Your task to perform on an android device: change the clock display to analog Image 0: 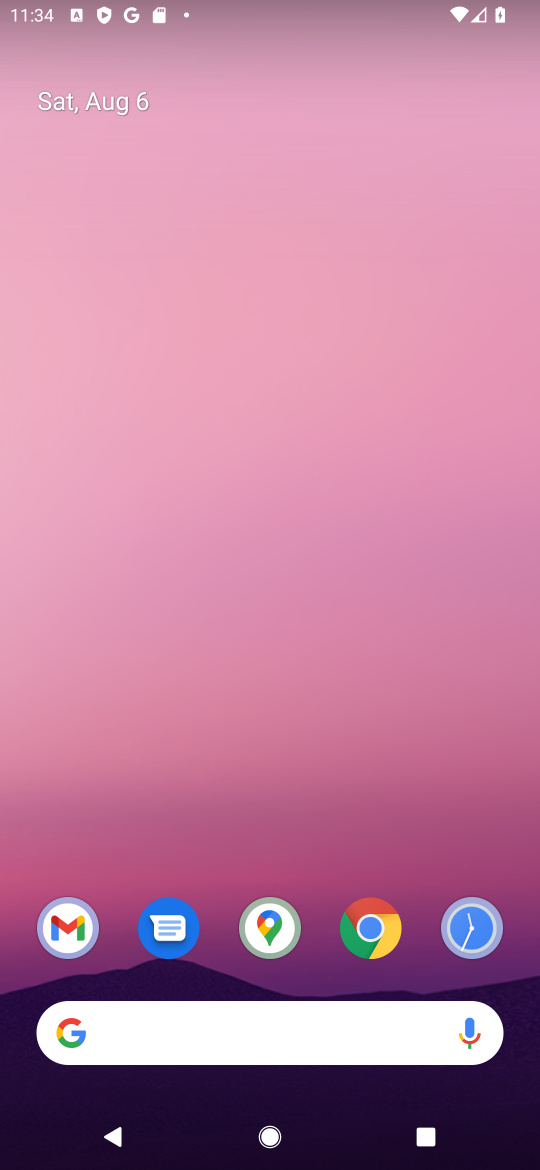
Step 0: click (460, 916)
Your task to perform on an android device: change the clock display to analog Image 1: 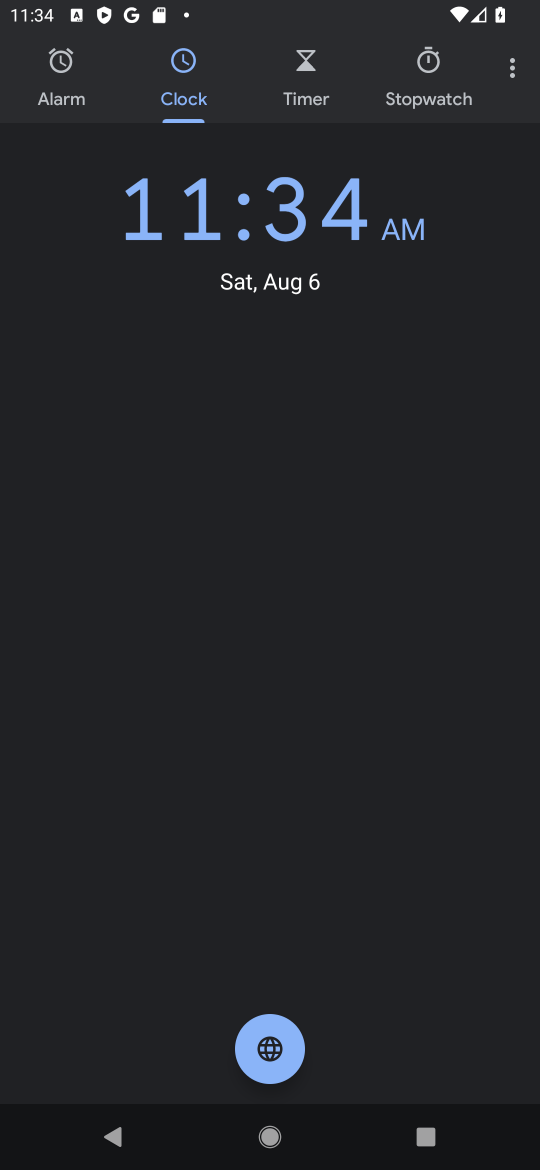
Step 1: click (505, 67)
Your task to perform on an android device: change the clock display to analog Image 2: 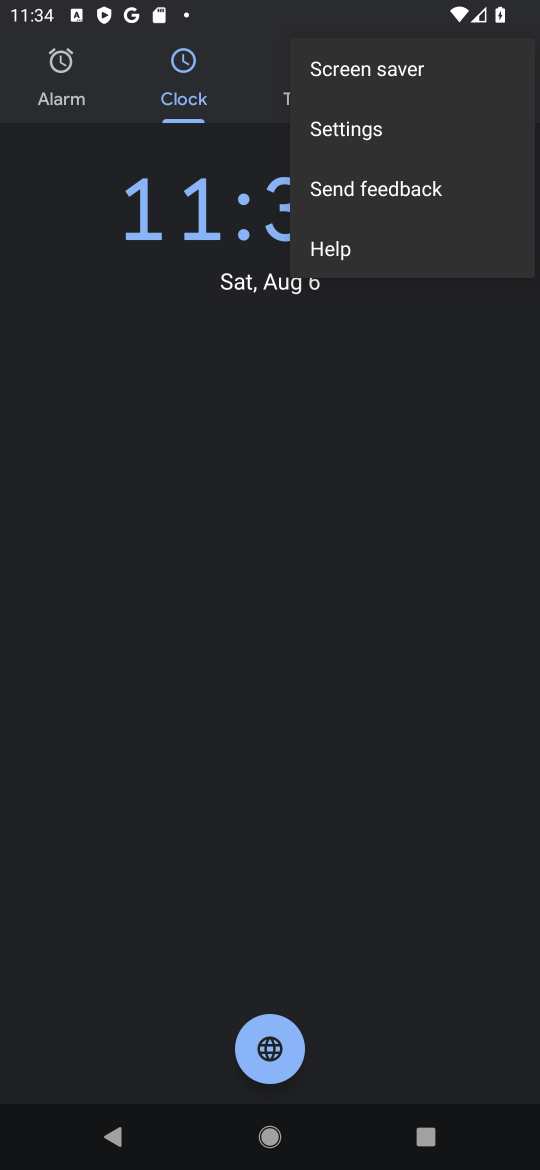
Step 2: click (363, 129)
Your task to perform on an android device: change the clock display to analog Image 3: 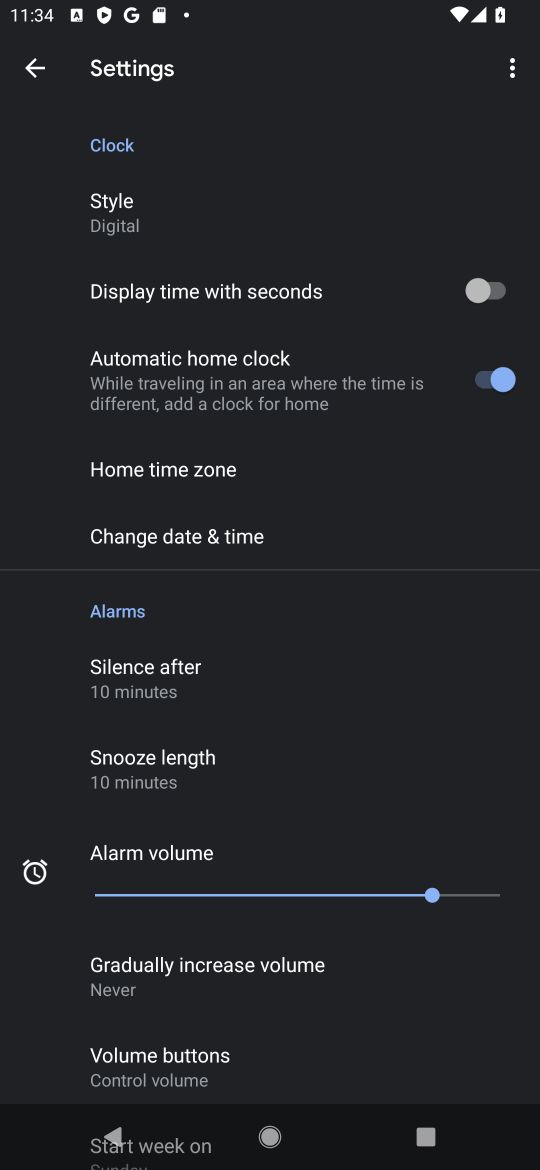
Step 3: click (122, 221)
Your task to perform on an android device: change the clock display to analog Image 4: 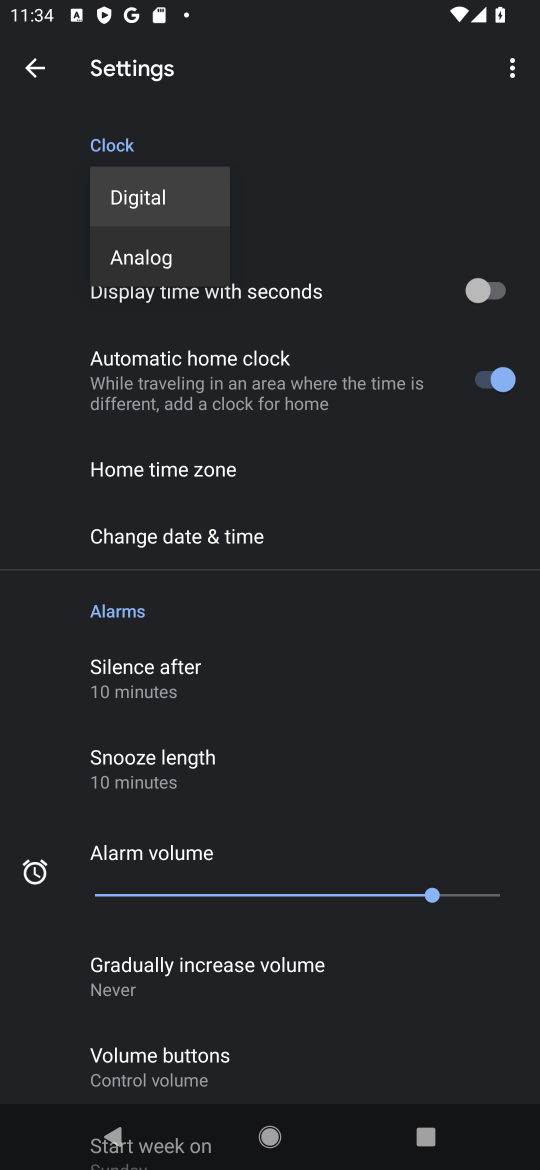
Step 4: click (153, 261)
Your task to perform on an android device: change the clock display to analog Image 5: 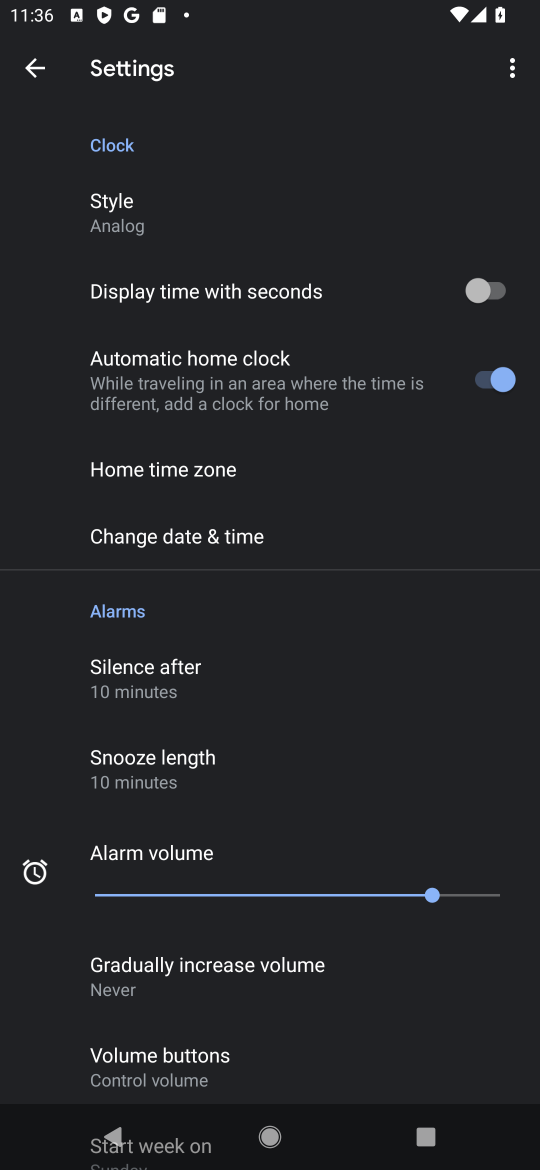
Step 5: task complete